Your task to perform on an android device: Search for Italian restaurants on Maps Image 0: 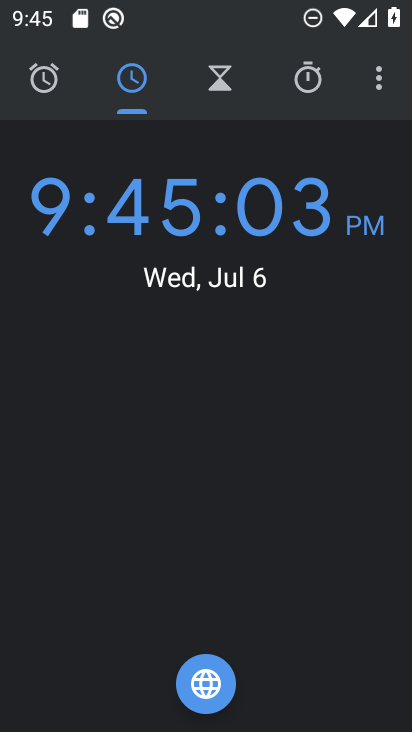
Step 0: press home button
Your task to perform on an android device: Search for Italian restaurants on Maps Image 1: 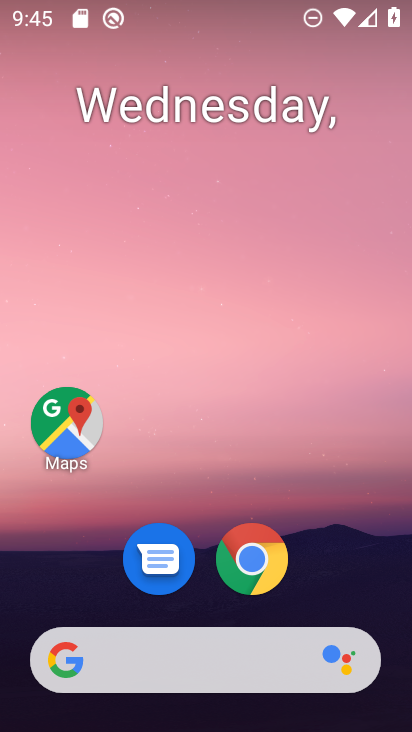
Step 1: drag from (374, 594) to (392, 146)
Your task to perform on an android device: Search for Italian restaurants on Maps Image 2: 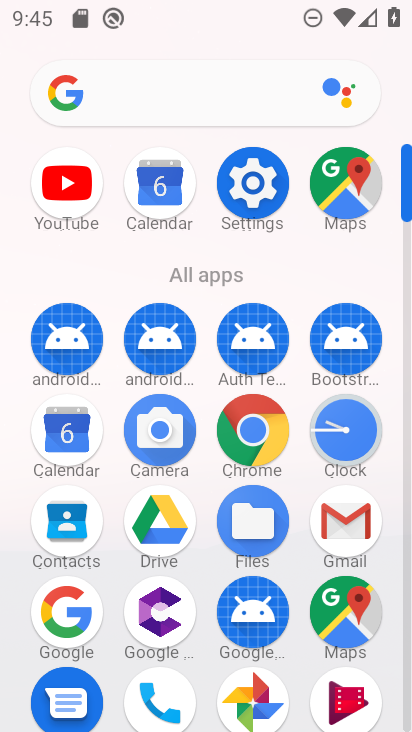
Step 2: click (357, 609)
Your task to perform on an android device: Search for Italian restaurants on Maps Image 3: 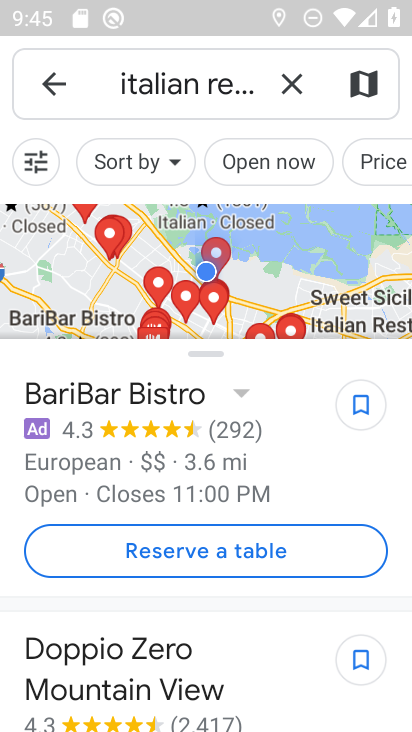
Step 3: task complete